Your task to perform on an android device: turn off data saver in the chrome app Image 0: 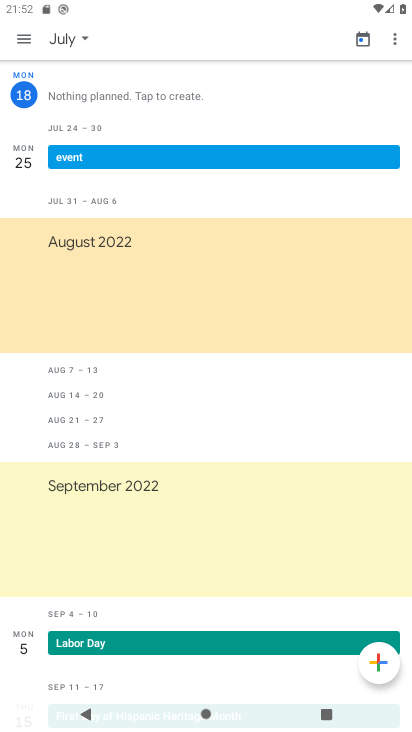
Step 0: press home button
Your task to perform on an android device: turn off data saver in the chrome app Image 1: 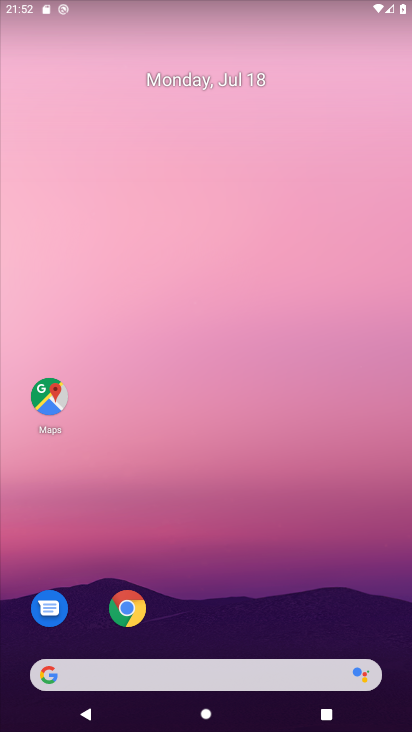
Step 1: drag from (205, 605) to (226, 54)
Your task to perform on an android device: turn off data saver in the chrome app Image 2: 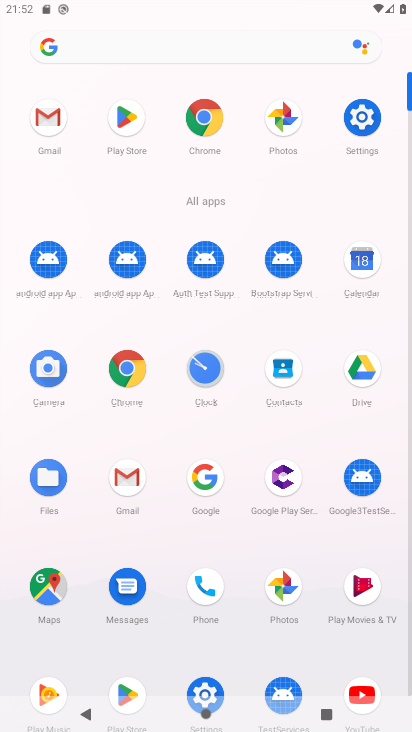
Step 2: click (136, 388)
Your task to perform on an android device: turn off data saver in the chrome app Image 3: 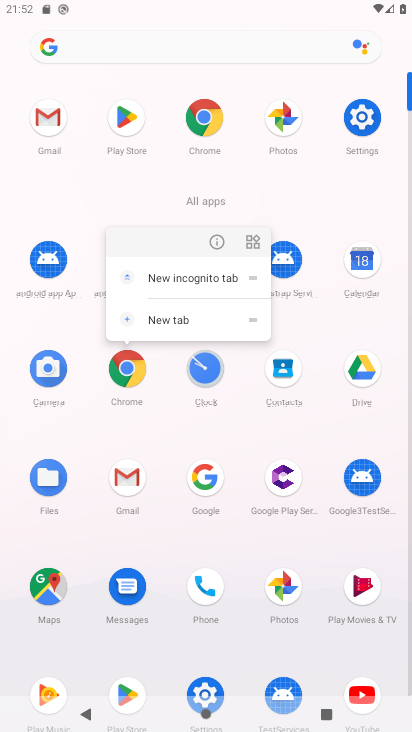
Step 3: click (134, 383)
Your task to perform on an android device: turn off data saver in the chrome app Image 4: 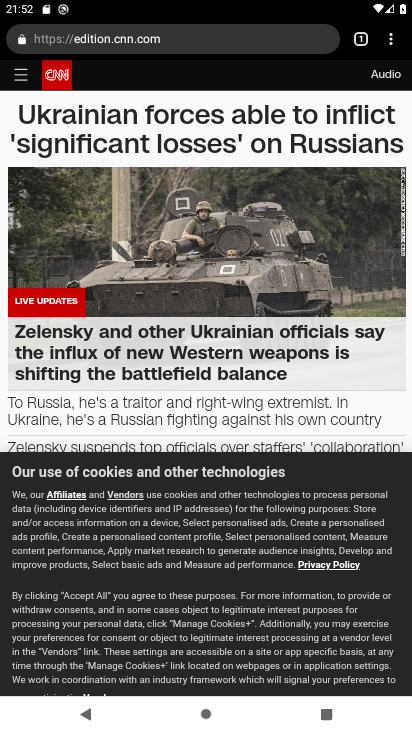
Step 4: drag from (394, 51) to (301, 430)
Your task to perform on an android device: turn off data saver in the chrome app Image 5: 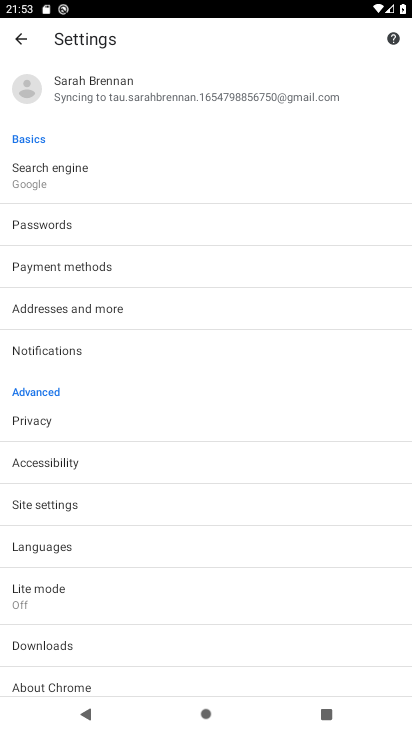
Step 5: click (93, 589)
Your task to perform on an android device: turn off data saver in the chrome app Image 6: 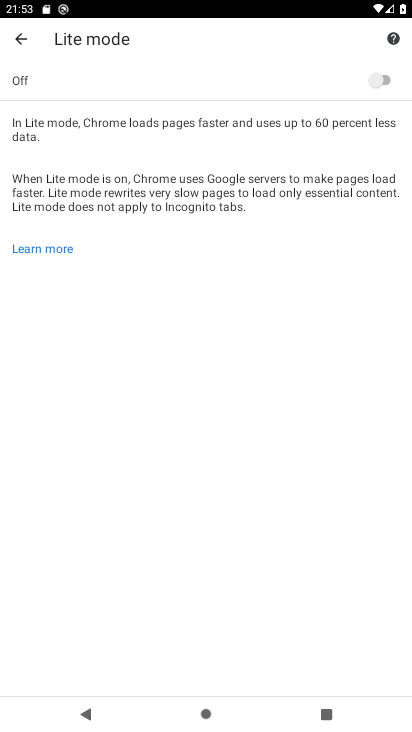
Step 6: task complete